Your task to perform on an android device: turn on translation in the chrome app Image 0: 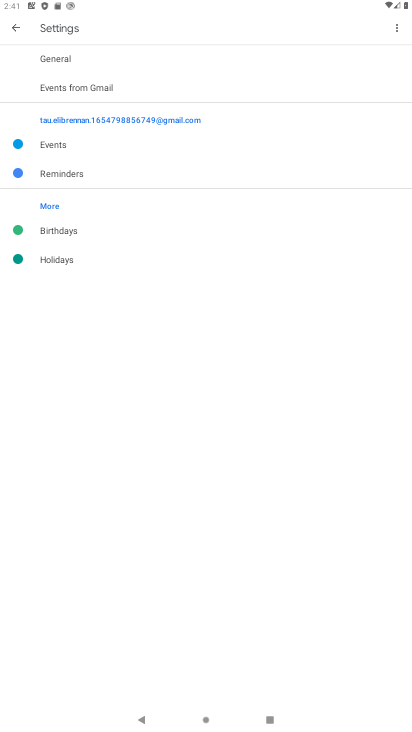
Step 0: click (12, 21)
Your task to perform on an android device: turn on translation in the chrome app Image 1: 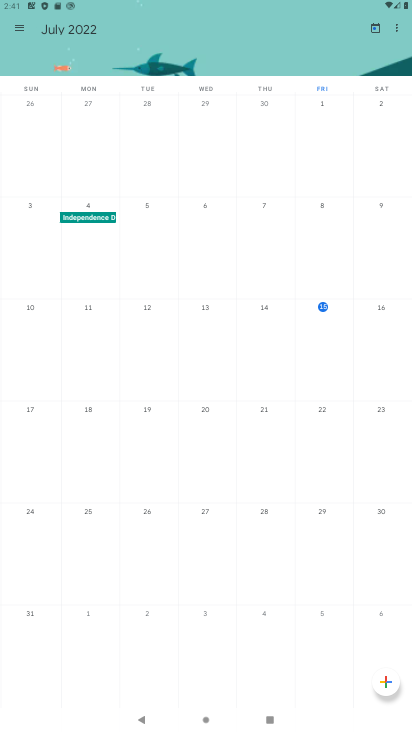
Step 1: press back button
Your task to perform on an android device: turn on translation in the chrome app Image 2: 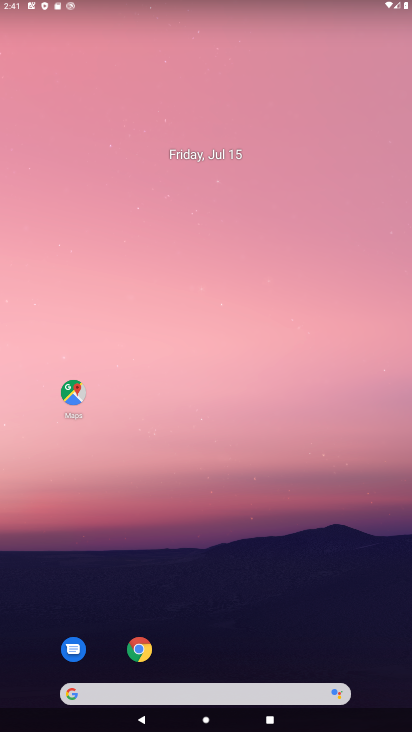
Step 2: drag from (309, 700) to (260, 169)
Your task to perform on an android device: turn on translation in the chrome app Image 3: 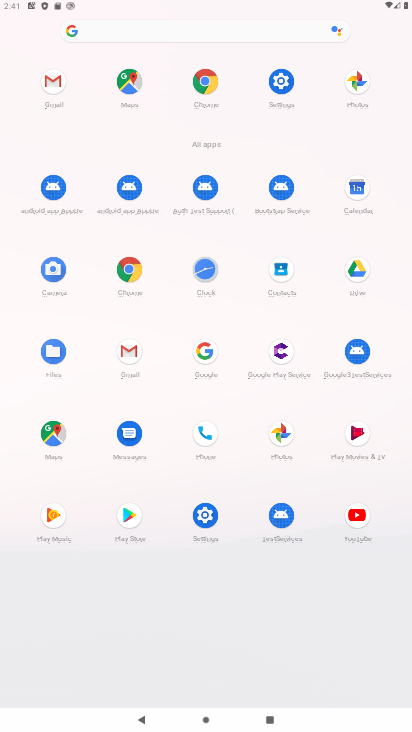
Step 3: click (212, 90)
Your task to perform on an android device: turn on translation in the chrome app Image 4: 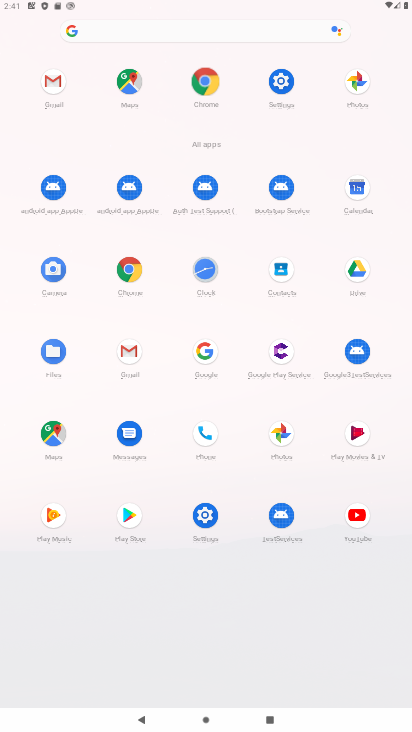
Step 4: click (212, 89)
Your task to perform on an android device: turn on translation in the chrome app Image 5: 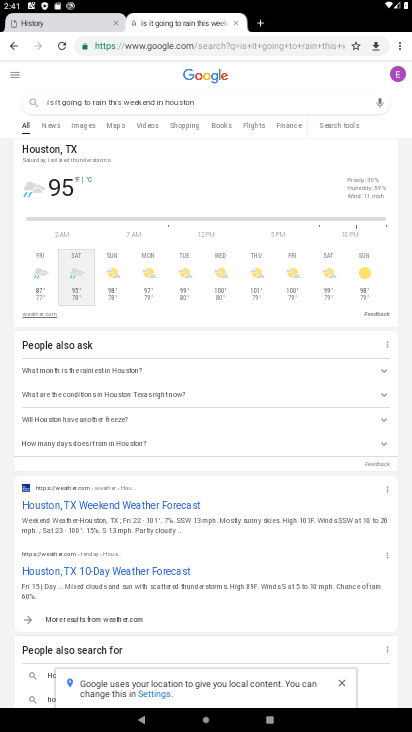
Step 5: drag from (396, 44) to (300, 282)
Your task to perform on an android device: turn on translation in the chrome app Image 6: 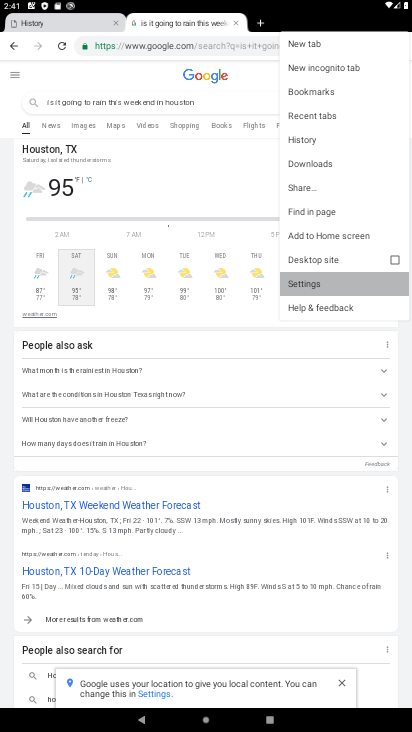
Step 6: click (301, 283)
Your task to perform on an android device: turn on translation in the chrome app Image 7: 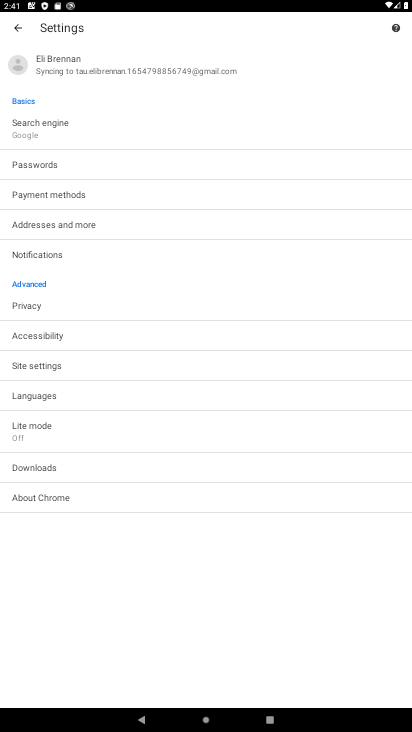
Step 7: click (31, 389)
Your task to perform on an android device: turn on translation in the chrome app Image 8: 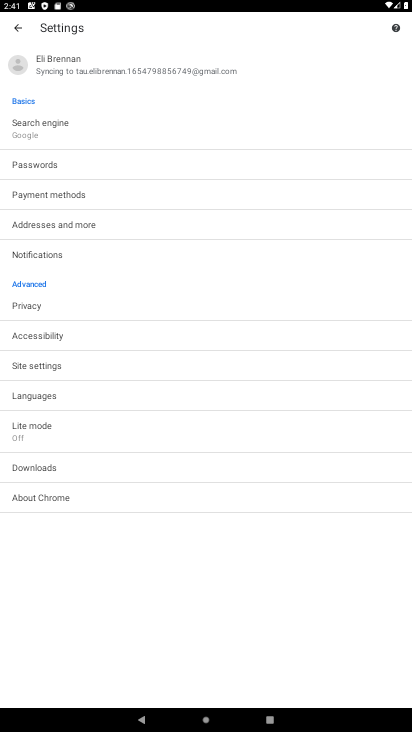
Step 8: click (32, 388)
Your task to perform on an android device: turn on translation in the chrome app Image 9: 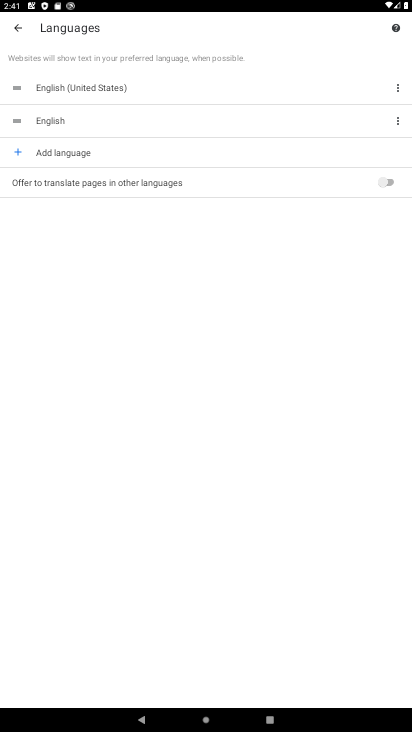
Step 9: click (386, 183)
Your task to perform on an android device: turn on translation in the chrome app Image 10: 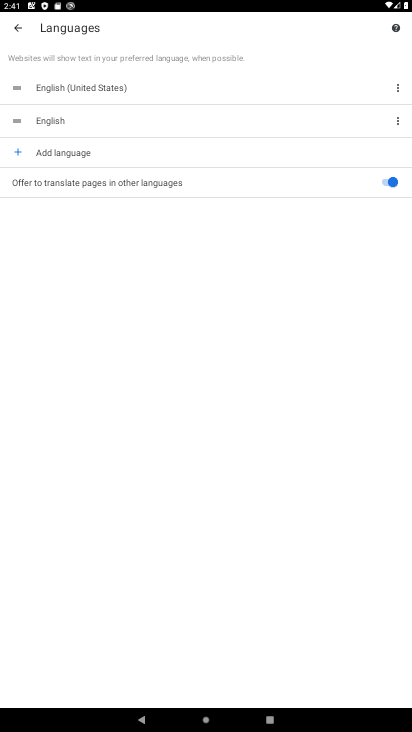
Step 10: task complete